Your task to perform on an android device: open chrome privacy settings Image 0: 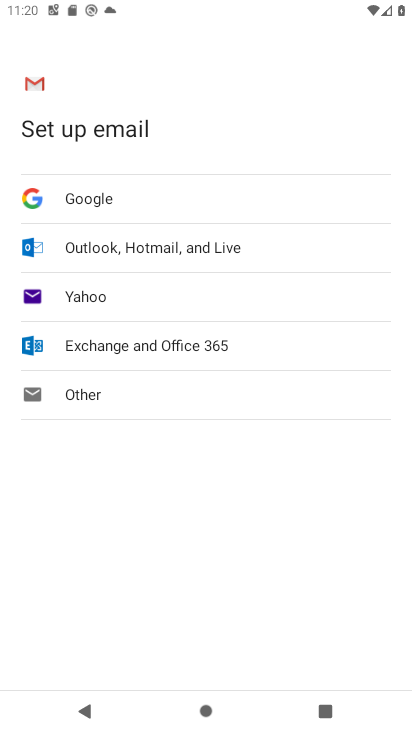
Step 0: press home button
Your task to perform on an android device: open chrome privacy settings Image 1: 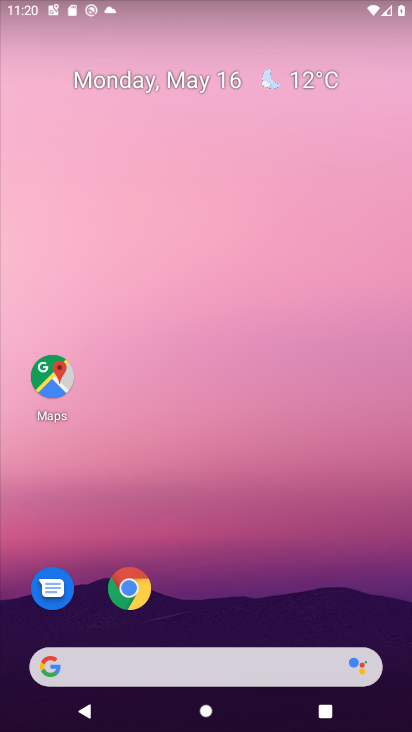
Step 1: drag from (211, 607) to (246, 57)
Your task to perform on an android device: open chrome privacy settings Image 2: 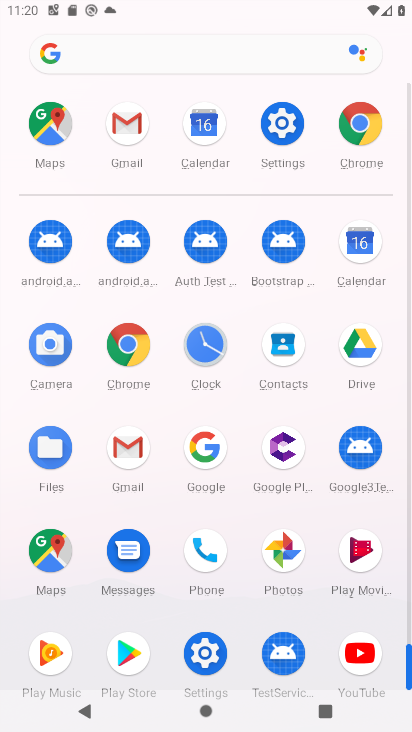
Step 2: click (279, 120)
Your task to perform on an android device: open chrome privacy settings Image 3: 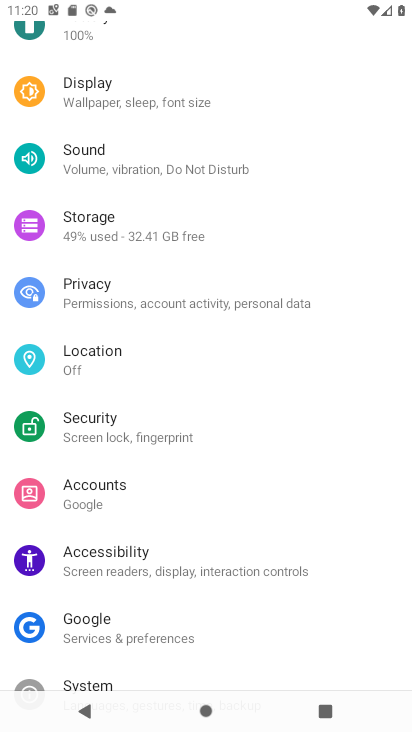
Step 3: click (122, 283)
Your task to perform on an android device: open chrome privacy settings Image 4: 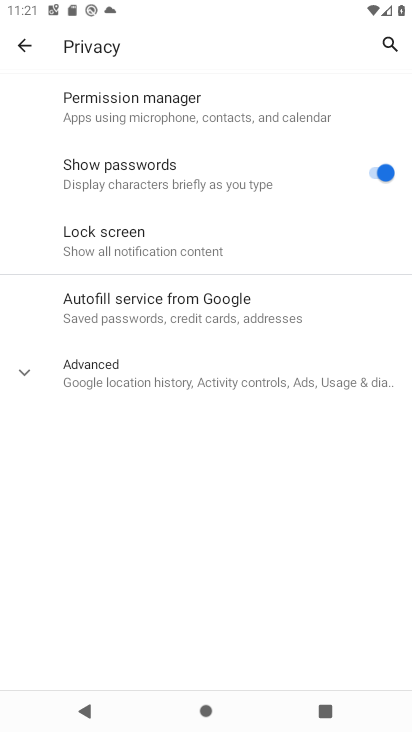
Step 4: click (27, 370)
Your task to perform on an android device: open chrome privacy settings Image 5: 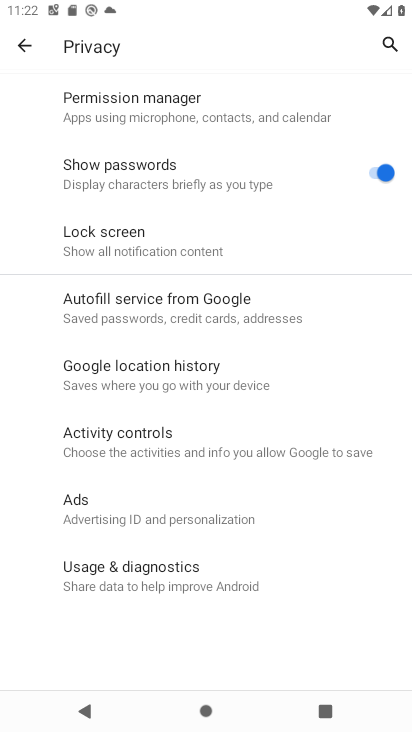
Step 5: task complete